Your task to perform on an android device: Open Maps and search for coffee Image 0: 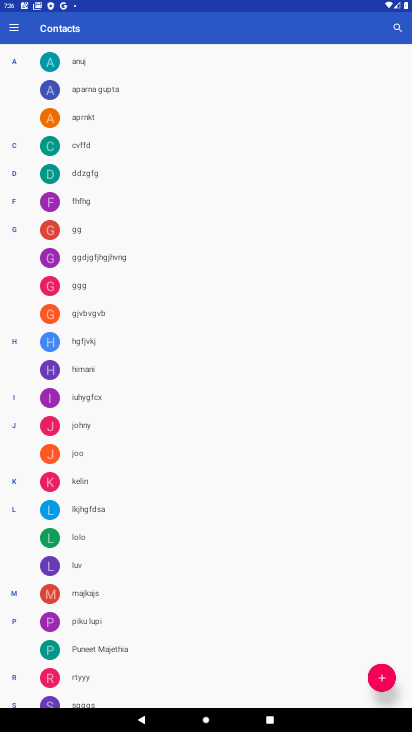
Step 0: press home button
Your task to perform on an android device: Open Maps and search for coffee Image 1: 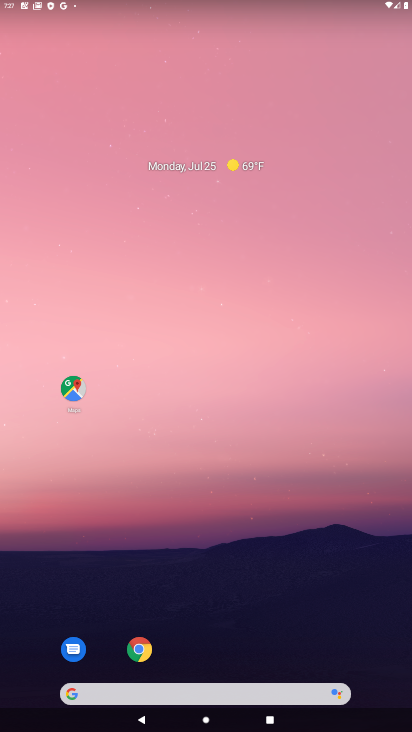
Step 1: drag from (299, 564) to (326, 79)
Your task to perform on an android device: Open Maps and search for coffee Image 2: 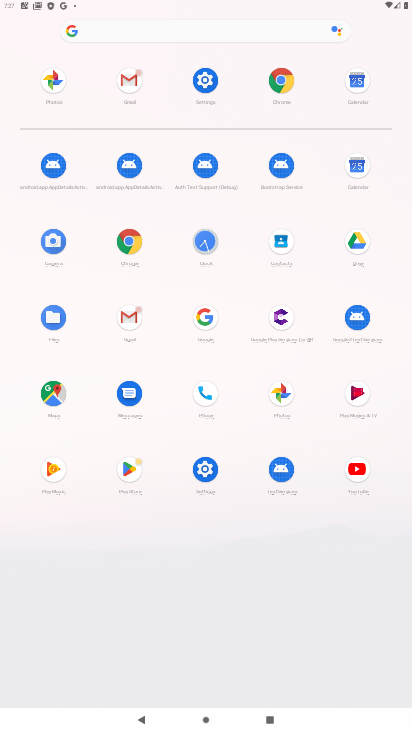
Step 2: click (40, 390)
Your task to perform on an android device: Open Maps and search for coffee Image 3: 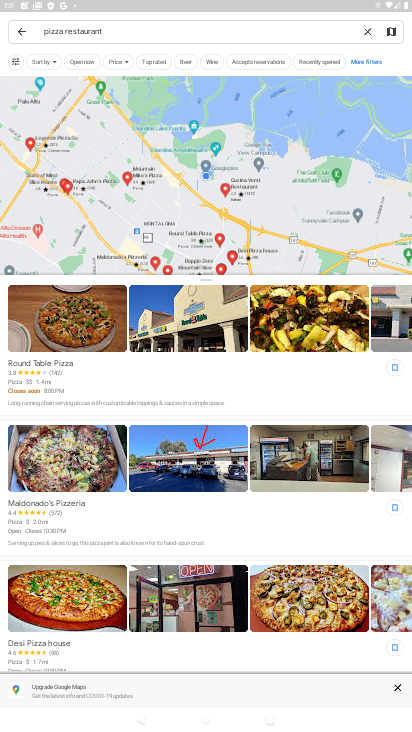
Step 3: click (363, 35)
Your task to perform on an android device: Open Maps and search for coffee Image 4: 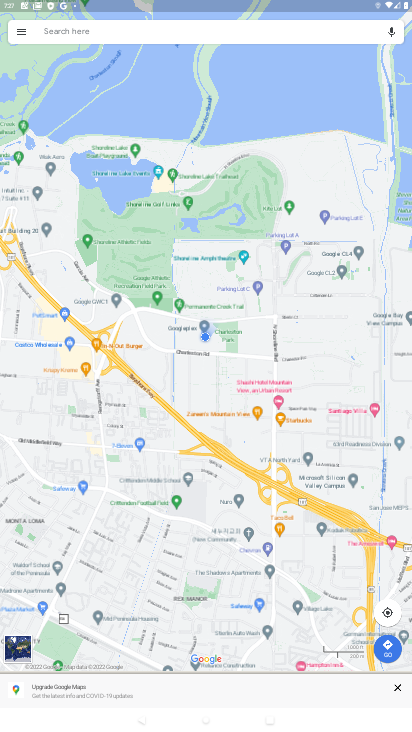
Step 4: click (175, 28)
Your task to perform on an android device: Open Maps and search for coffee Image 5: 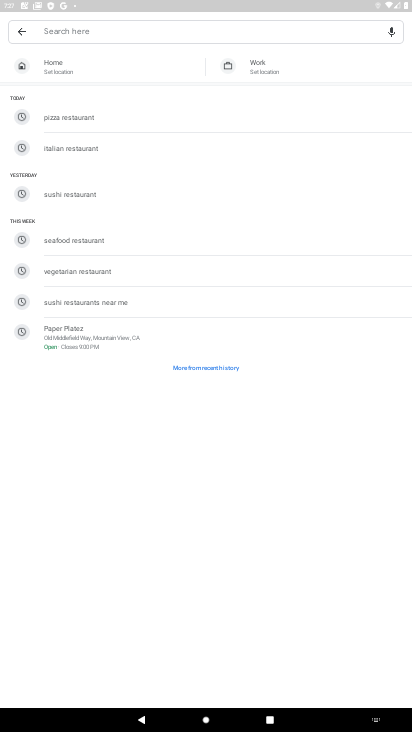
Step 5: type "coffee"
Your task to perform on an android device: Open Maps and search for coffee Image 6: 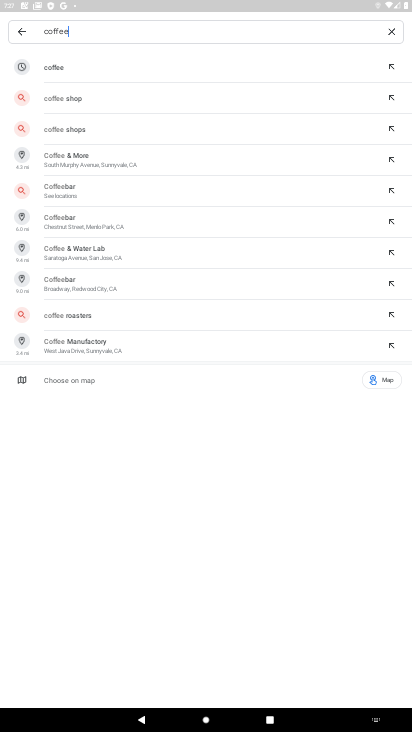
Step 6: click (82, 61)
Your task to perform on an android device: Open Maps and search for coffee Image 7: 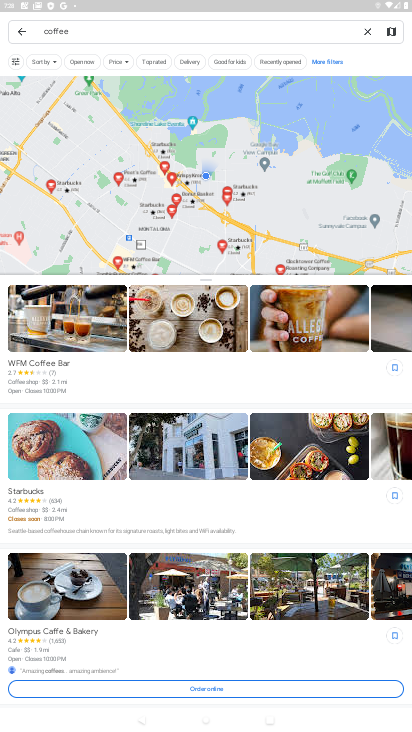
Step 7: task complete